Your task to perform on an android device: Open CNN.com Image 0: 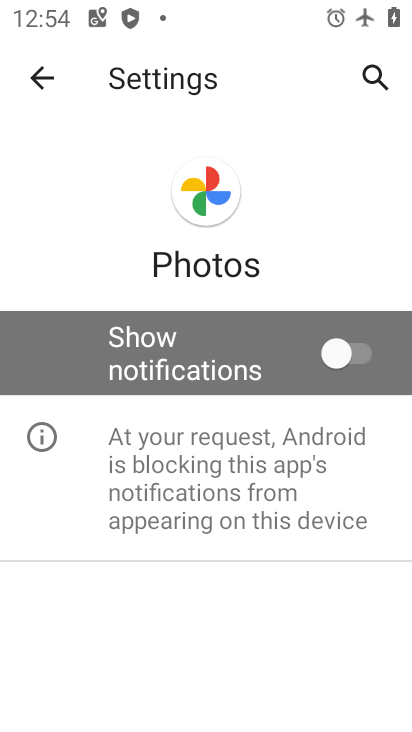
Step 0: press home button
Your task to perform on an android device: Open CNN.com Image 1: 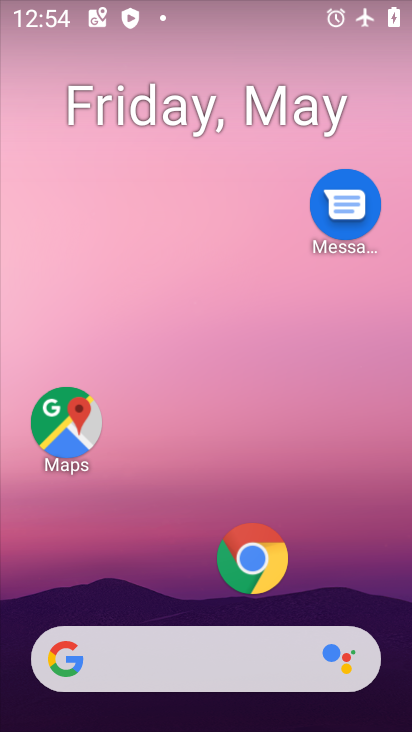
Step 1: click (247, 558)
Your task to perform on an android device: Open CNN.com Image 2: 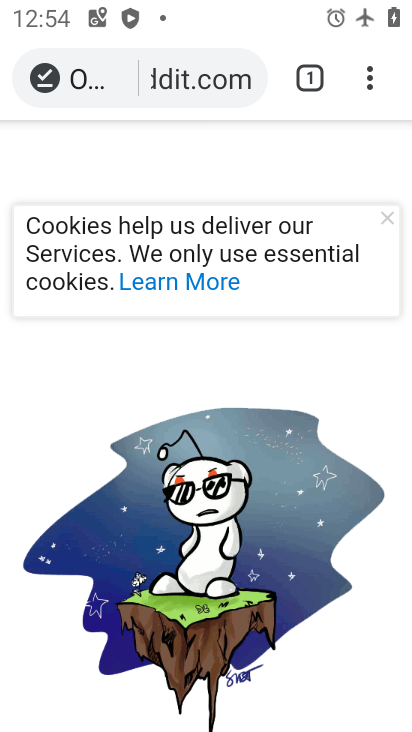
Step 2: click (221, 80)
Your task to perform on an android device: Open CNN.com Image 3: 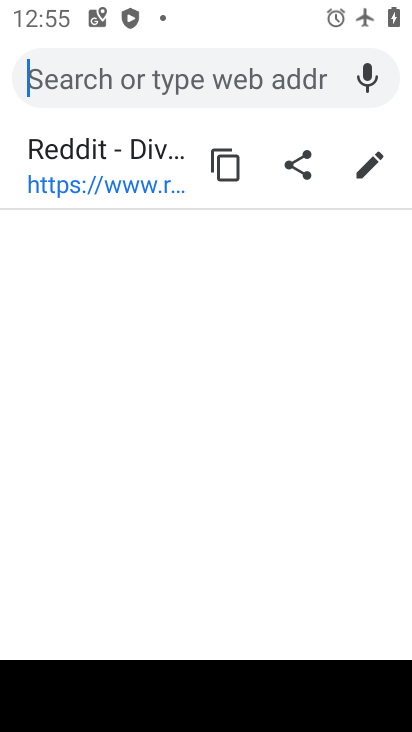
Step 3: type "cnn"
Your task to perform on an android device: Open CNN.com Image 4: 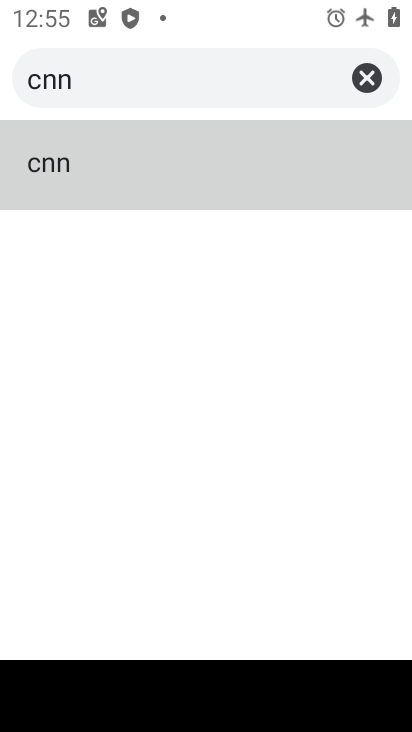
Step 4: click (282, 176)
Your task to perform on an android device: Open CNN.com Image 5: 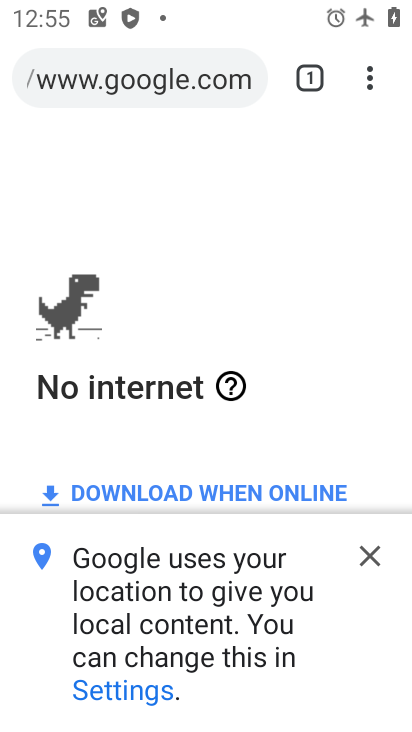
Step 5: task complete